Your task to perform on an android device: Empty the shopping cart on ebay.com. Search for "bose soundlink" on ebay.com, select the first entry, add it to the cart, then select checkout. Image 0: 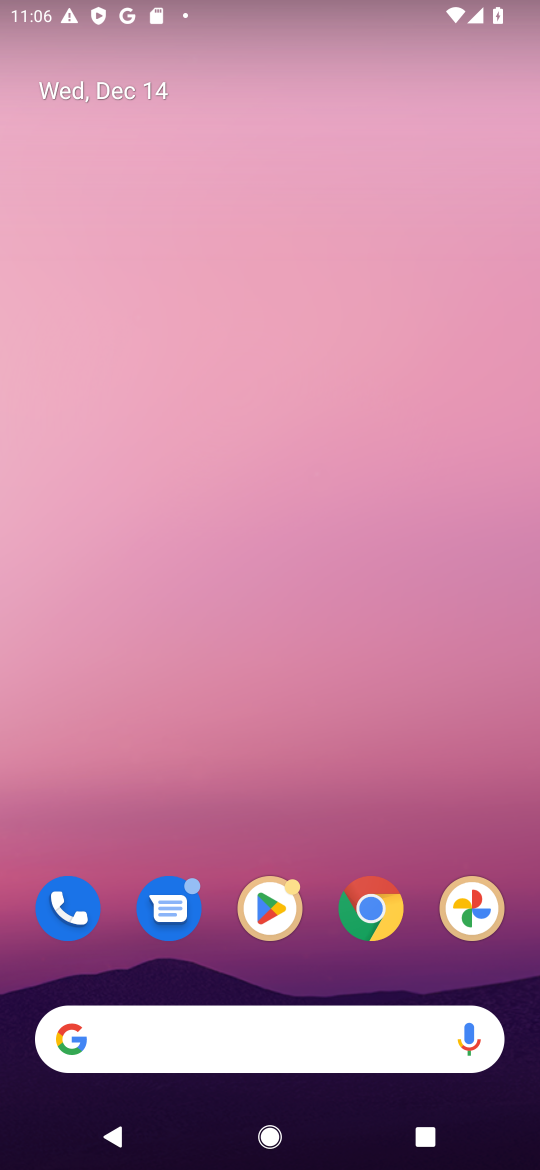
Step 0: click (370, 920)
Your task to perform on an android device: Empty the shopping cart on ebay.com. Search for "bose soundlink" on ebay.com, select the first entry, add it to the cart, then select checkout. Image 1: 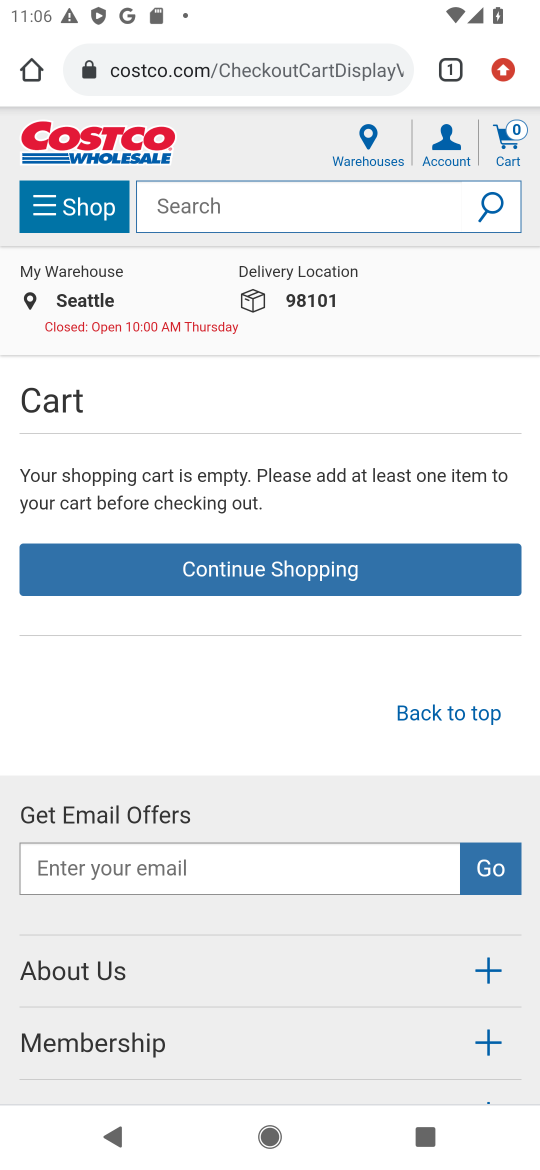
Step 1: click (184, 56)
Your task to perform on an android device: Empty the shopping cart on ebay.com. Search for "bose soundlink" on ebay.com, select the first entry, add it to the cart, then select checkout. Image 2: 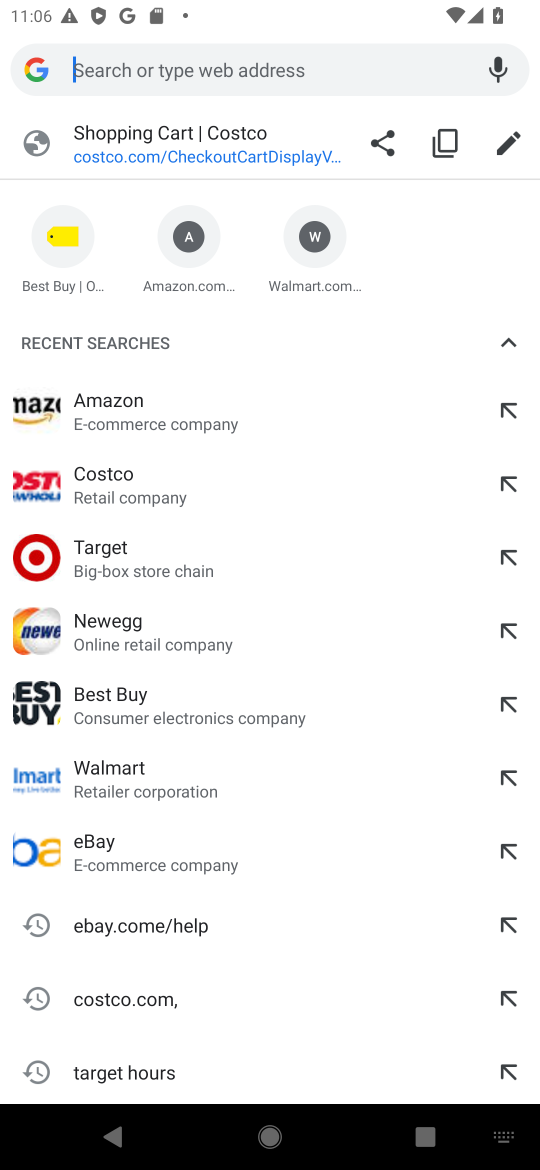
Step 2: click (170, 839)
Your task to perform on an android device: Empty the shopping cart on ebay.com. Search for "bose soundlink" on ebay.com, select the first entry, add it to the cart, then select checkout. Image 3: 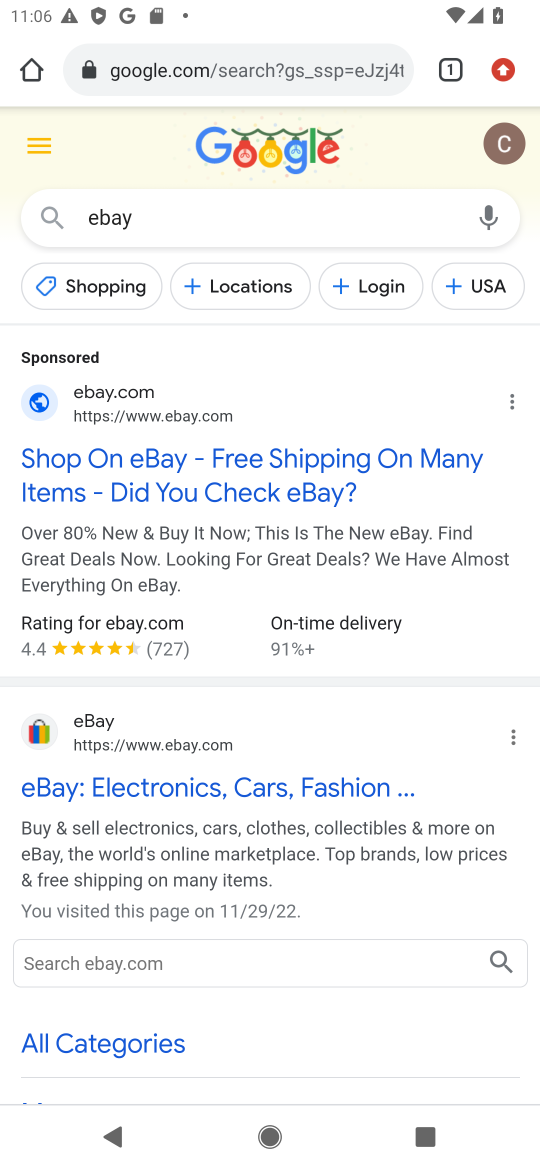
Step 3: click (110, 475)
Your task to perform on an android device: Empty the shopping cart on ebay.com. Search for "bose soundlink" on ebay.com, select the first entry, add it to the cart, then select checkout. Image 4: 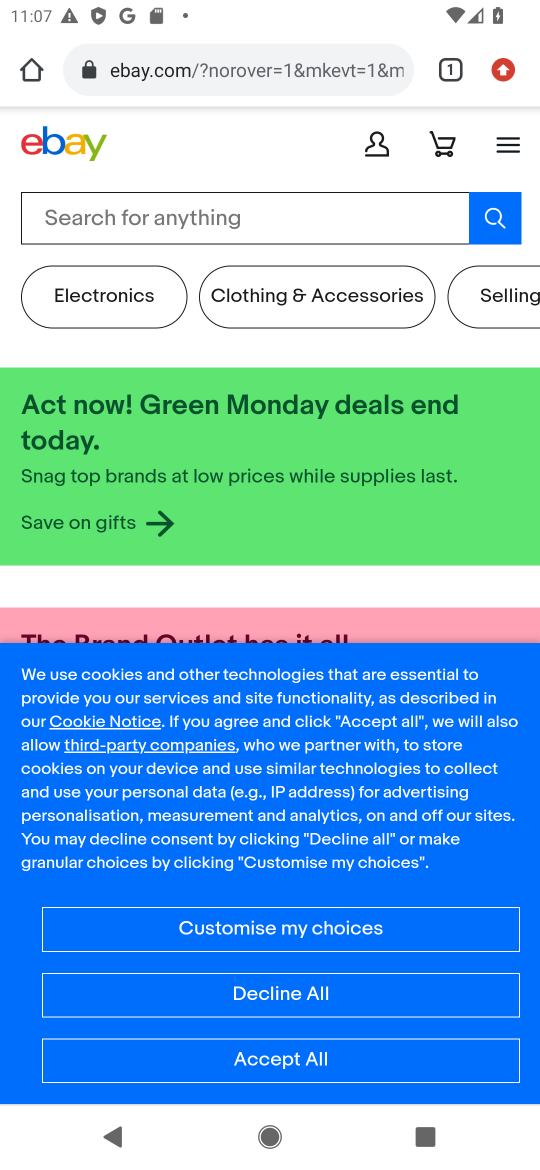
Step 4: click (297, 204)
Your task to perform on an android device: Empty the shopping cart on ebay.com. Search for "bose soundlink" on ebay.com, select the first entry, add it to the cart, then select checkout. Image 5: 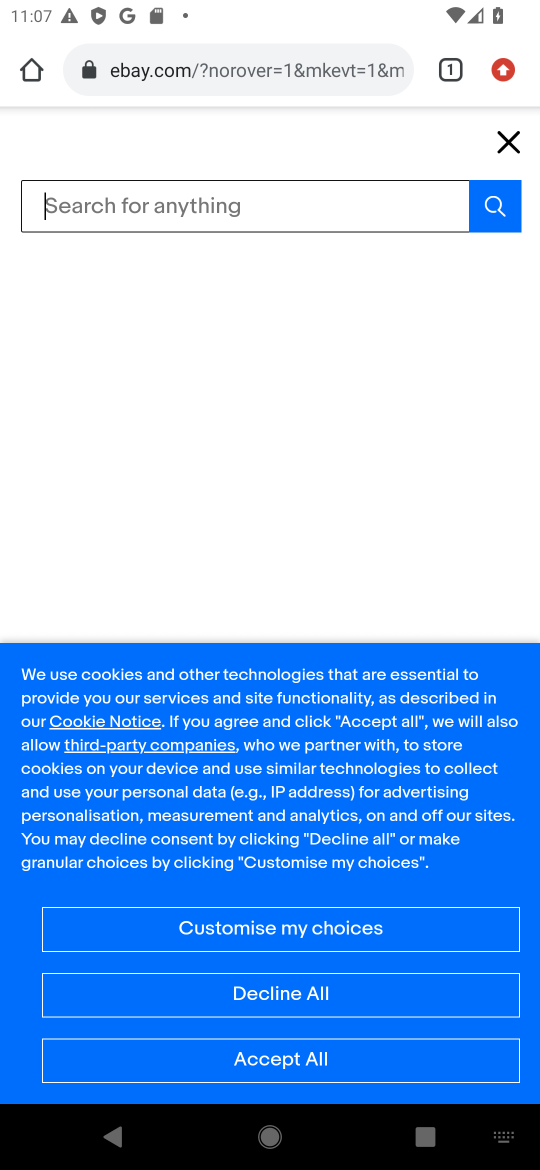
Step 5: type "bose soundlink"
Your task to perform on an android device: Empty the shopping cart on ebay.com. Search for "bose soundlink" on ebay.com, select the first entry, add it to the cart, then select checkout. Image 6: 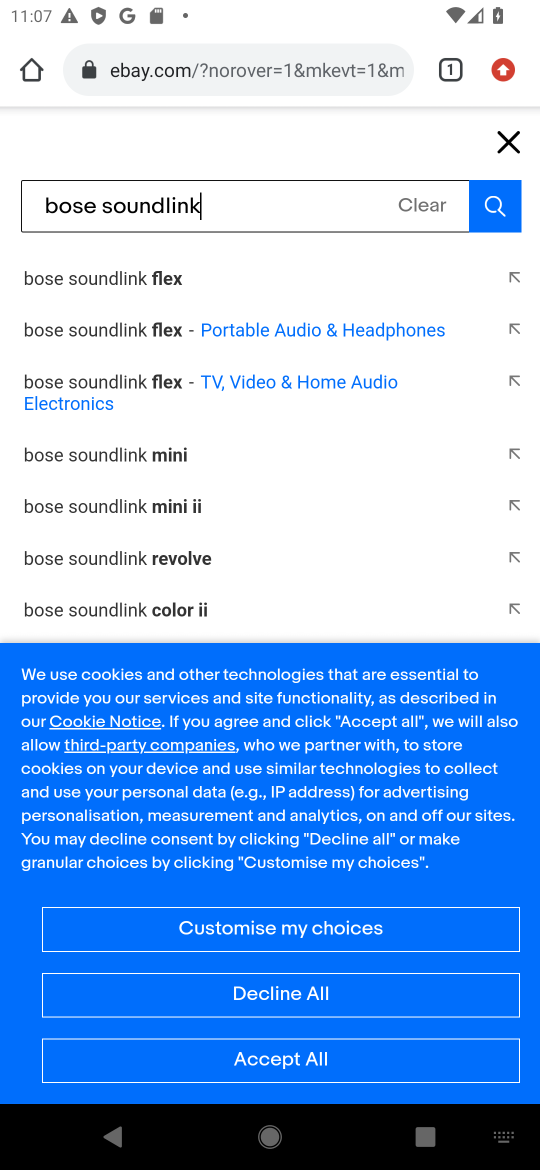
Step 6: click (501, 203)
Your task to perform on an android device: Empty the shopping cart on ebay.com. Search for "bose soundlink" on ebay.com, select the first entry, add it to the cart, then select checkout. Image 7: 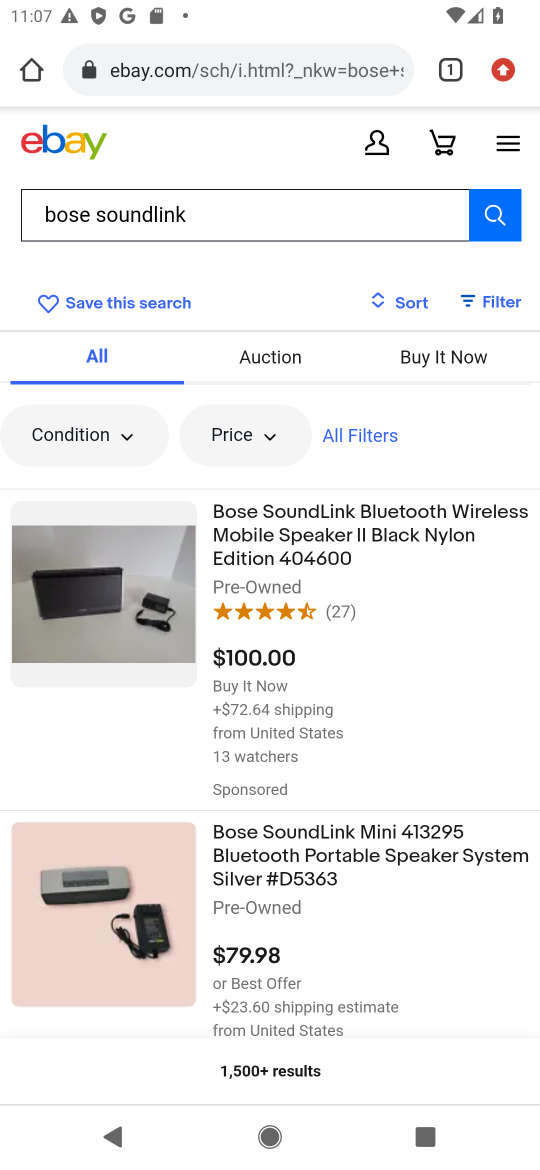
Step 7: click (269, 560)
Your task to perform on an android device: Empty the shopping cart on ebay.com. Search for "bose soundlink" on ebay.com, select the first entry, add it to the cart, then select checkout. Image 8: 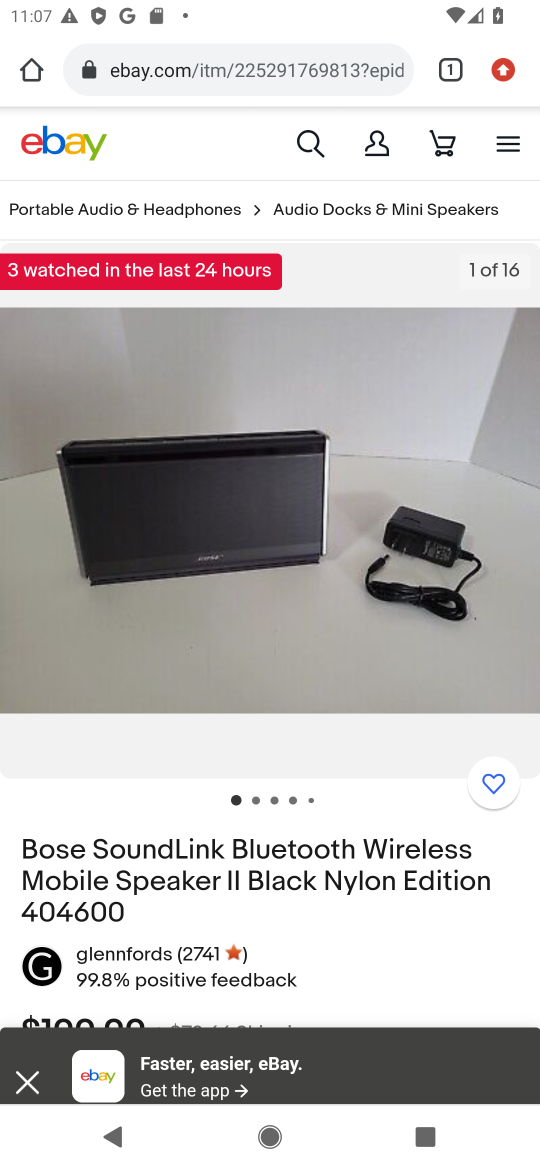
Step 8: drag from (147, 1000) to (272, 435)
Your task to perform on an android device: Empty the shopping cart on ebay.com. Search for "bose soundlink" on ebay.com, select the first entry, add it to the cart, then select checkout. Image 9: 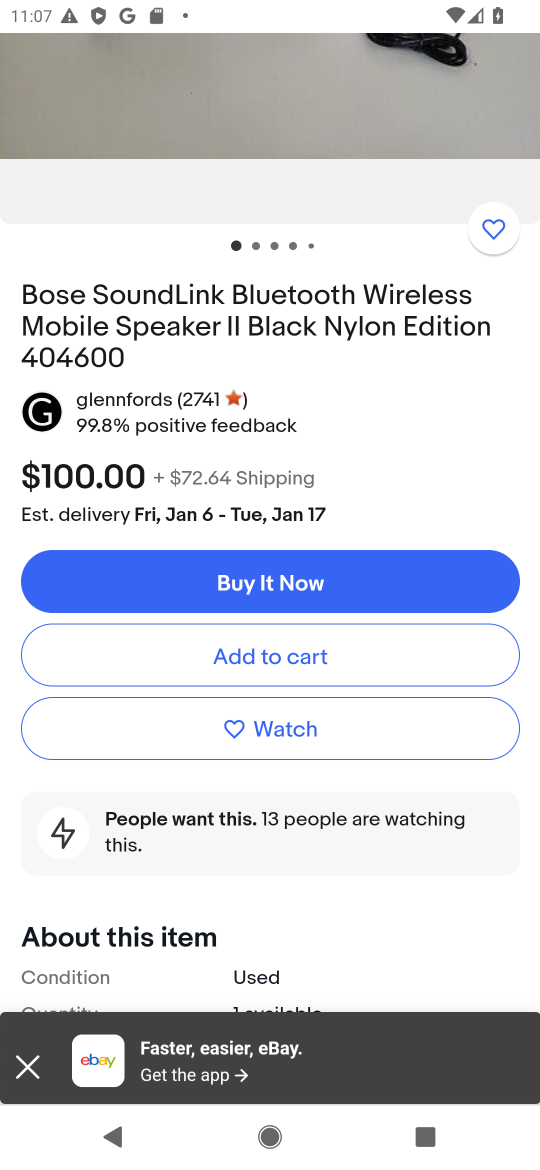
Step 9: click (191, 635)
Your task to perform on an android device: Empty the shopping cart on ebay.com. Search for "bose soundlink" on ebay.com, select the first entry, add it to the cart, then select checkout. Image 10: 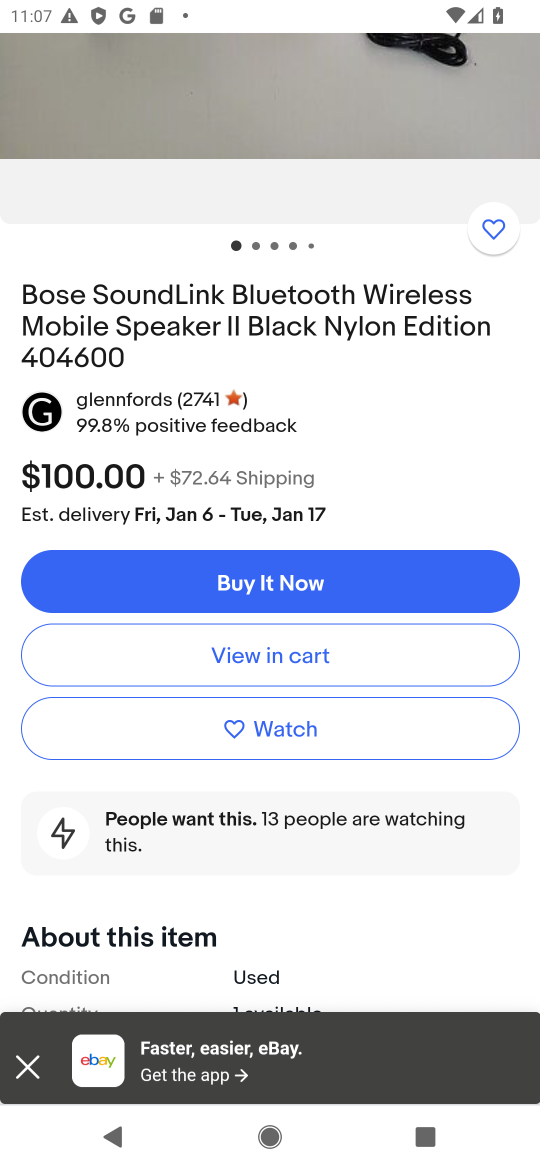
Step 10: task complete